Your task to perform on an android device: add a contact Image 0: 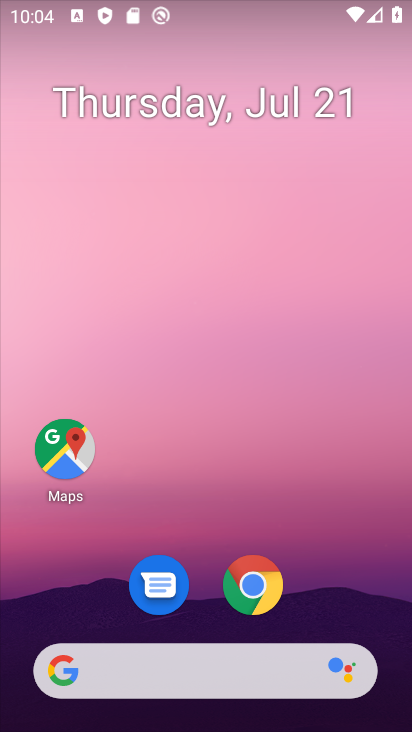
Step 0: drag from (327, 594) to (319, 60)
Your task to perform on an android device: add a contact Image 1: 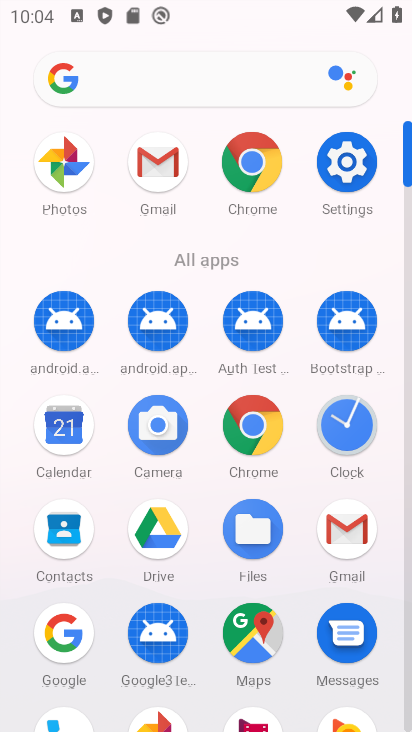
Step 1: click (74, 524)
Your task to perform on an android device: add a contact Image 2: 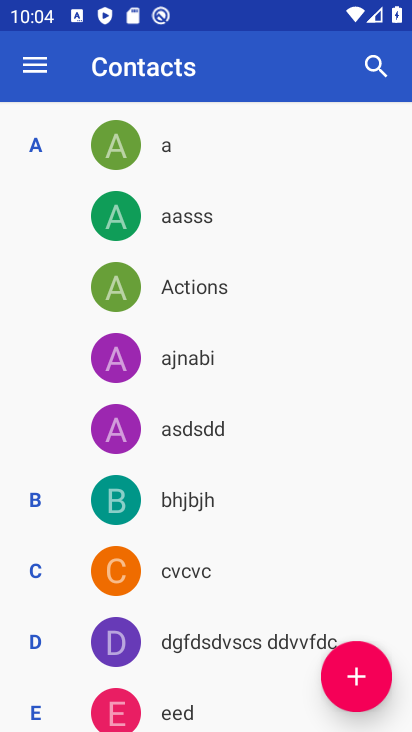
Step 2: drag from (248, 638) to (320, 51)
Your task to perform on an android device: add a contact Image 3: 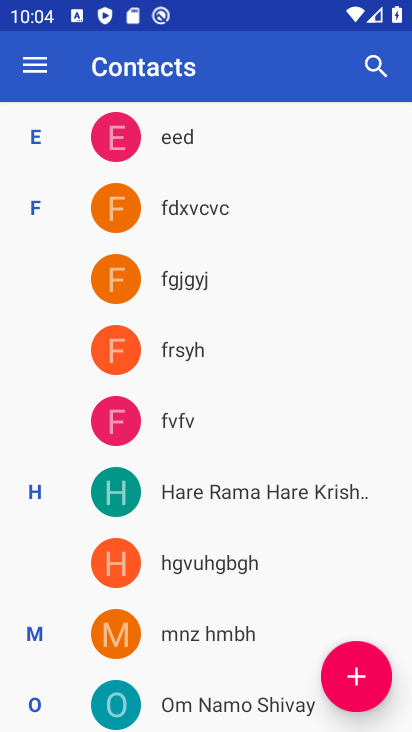
Step 3: drag from (215, 617) to (242, 169)
Your task to perform on an android device: add a contact Image 4: 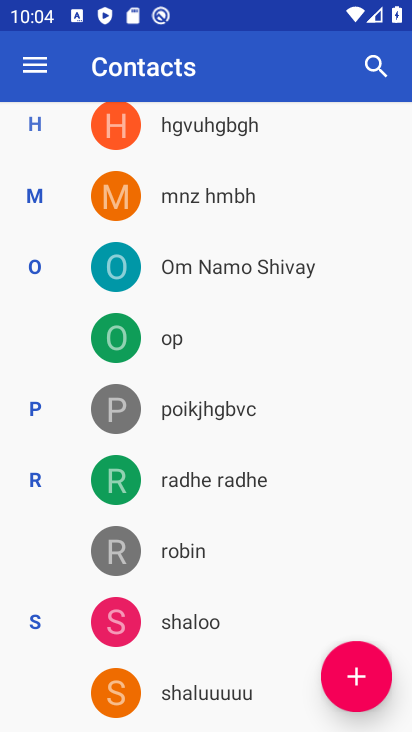
Step 4: click (347, 681)
Your task to perform on an android device: add a contact Image 5: 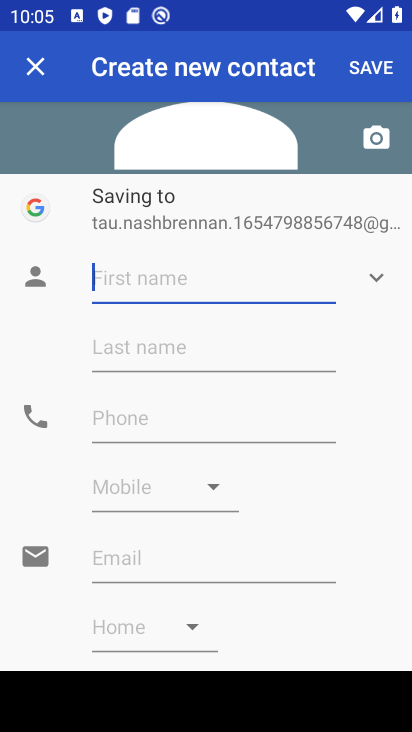
Step 5: type "Hare Krishna"
Your task to perform on an android device: add a contact Image 6: 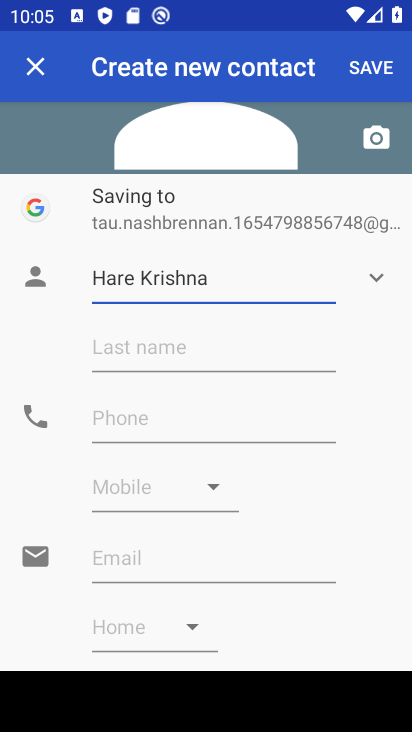
Step 6: click (180, 416)
Your task to perform on an android device: add a contact Image 7: 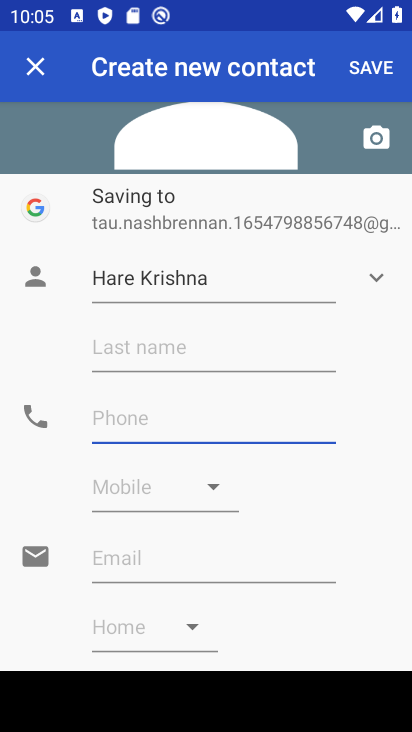
Step 7: type "+91987000001"
Your task to perform on an android device: add a contact Image 8: 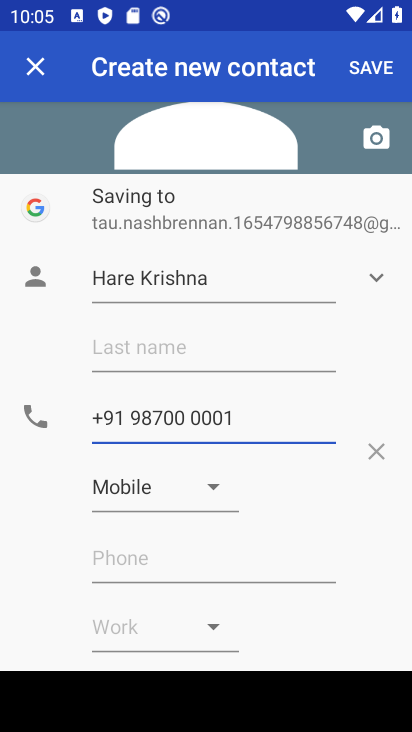
Step 8: type "1"
Your task to perform on an android device: add a contact Image 9: 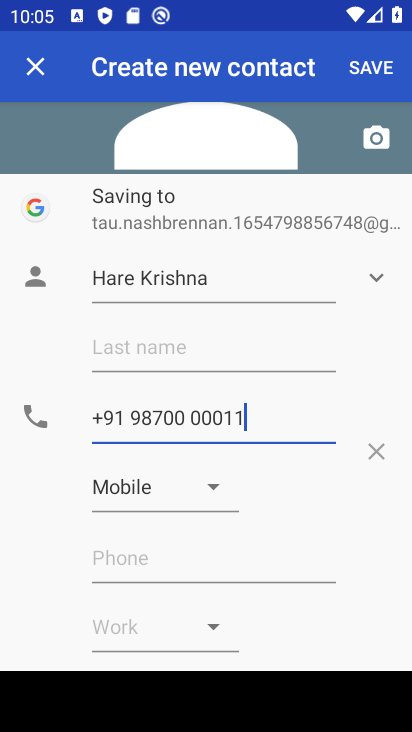
Step 9: click (373, 72)
Your task to perform on an android device: add a contact Image 10: 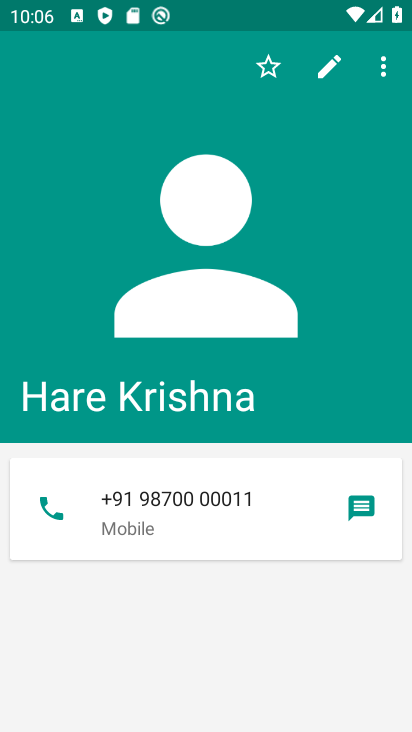
Step 10: task complete